Your task to perform on an android device: Go to wifi settings Image 0: 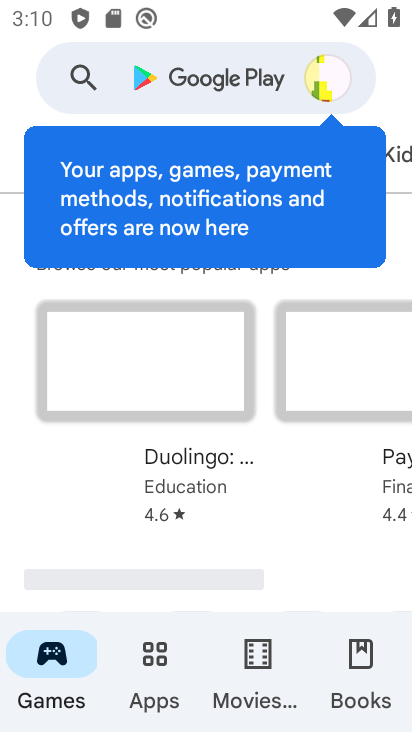
Step 0: press back button
Your task to perform on an android device: Go to wifi settings Image 1: 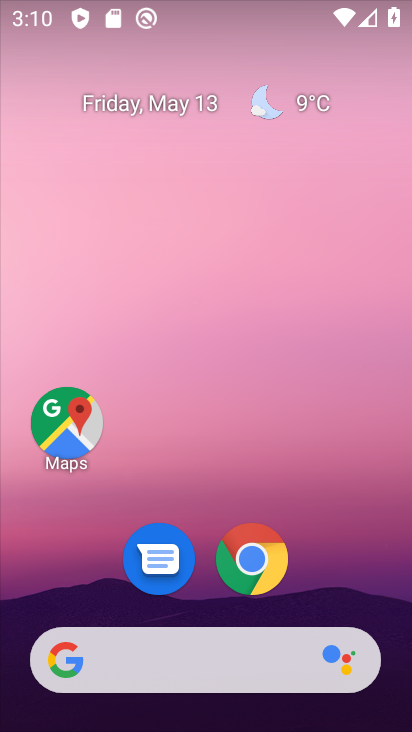
Step 1: drag from (217, 595) to (260, 126)
Your task to perform on an android device: Go to wifi settings Image 2: 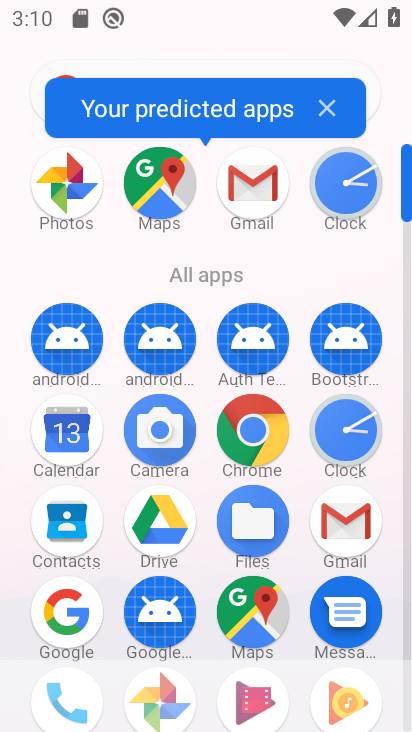
Step 2: drag from (106, 14) to (108, 490)
Your task to perform on an android device: Go to wifi settings Image 3: 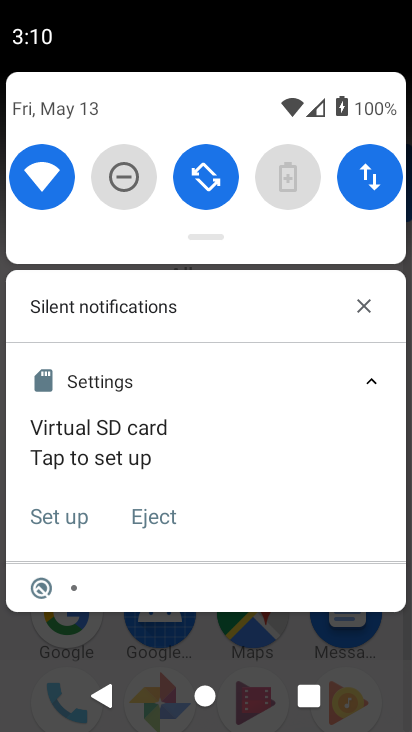
Step 3: click (44, 162)
Your task to perform on an android device: Go to wifi settings Image 4: 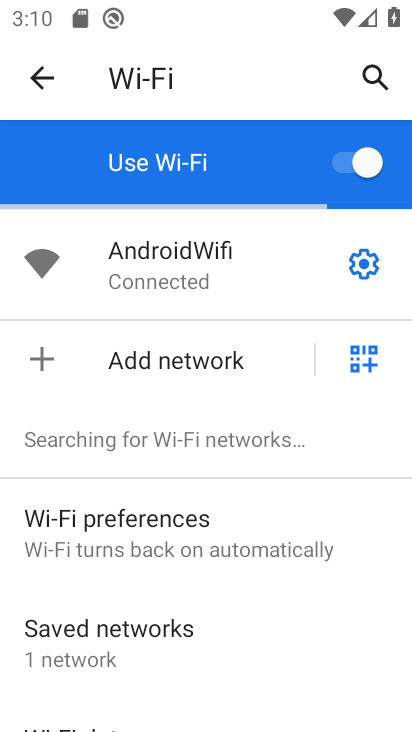
Step 4: task complete